Your task to perform on an android device: Open sound settings Image 0: 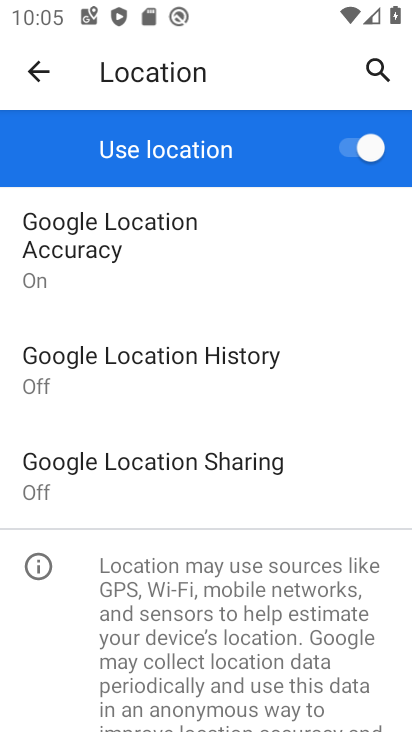
Step 0: press home button
Your task to perform on an android device: Open sound settings Image 1: 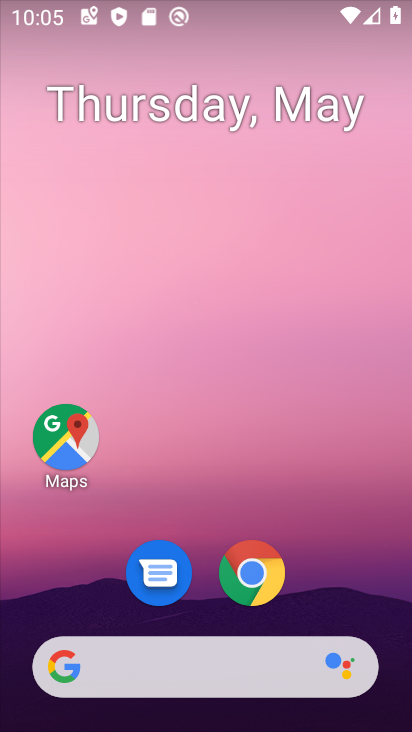
Step 1: drag from (200, 604) to (216, 188)
Your task to perform on an android device: Open sound settings Image 2: 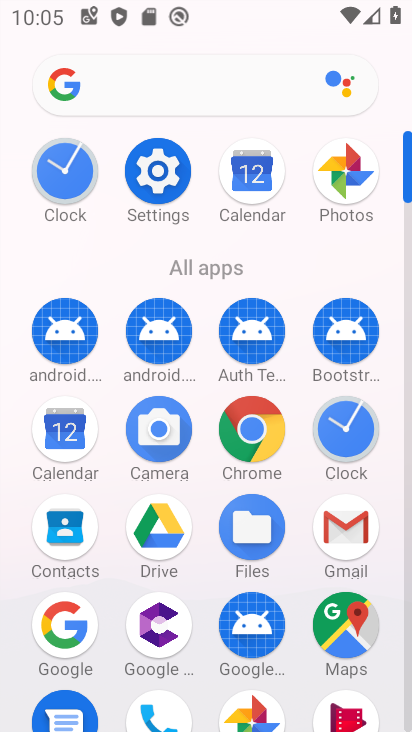
Step 2: click (169, 165)
Your task to perform on an android device: Open sound settings Image 3: 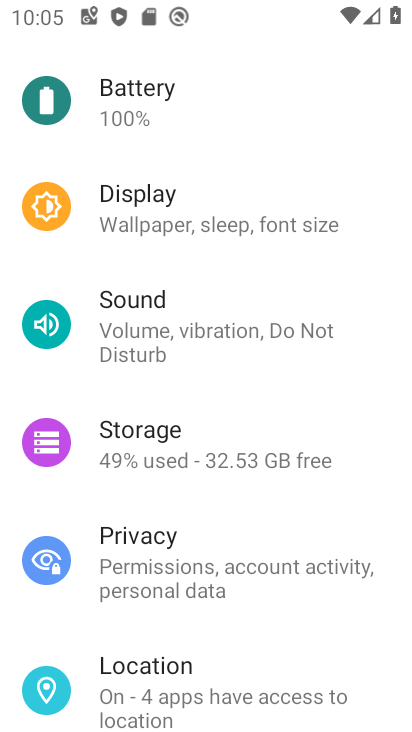
Step 3: click (140, 298)
Your task to perform on an android device: Open sound settings Image 4: 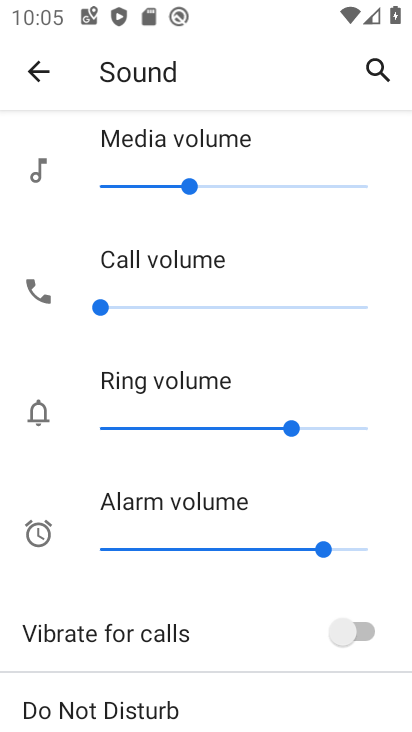
Step 4: task complete